Your task to perform on an android device: open app "Skype" Image 0: 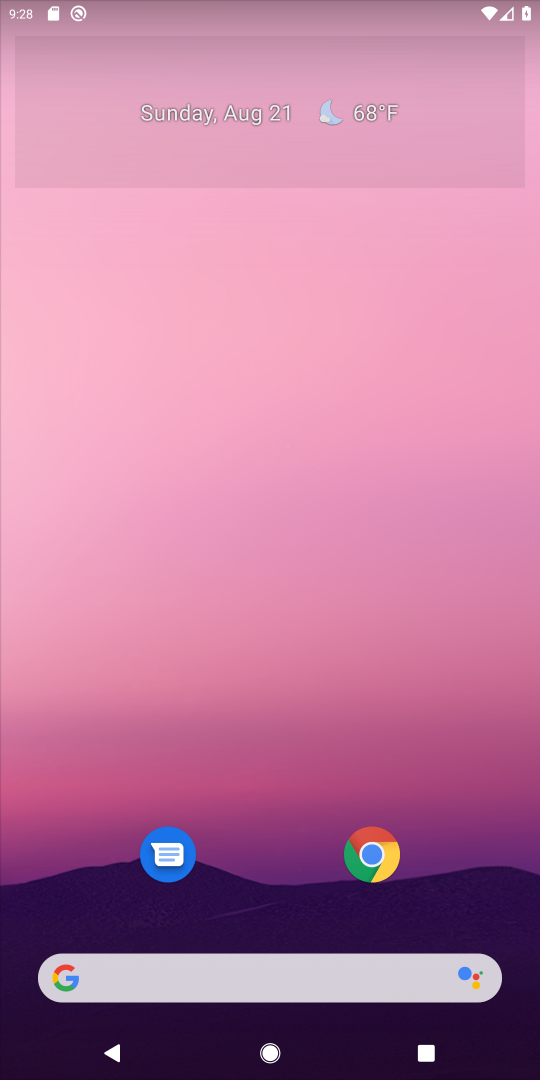
Step 0: drag from (318, 440) to (366, 175)
Your task to perform on an android device: open app "Skype" Image 1: 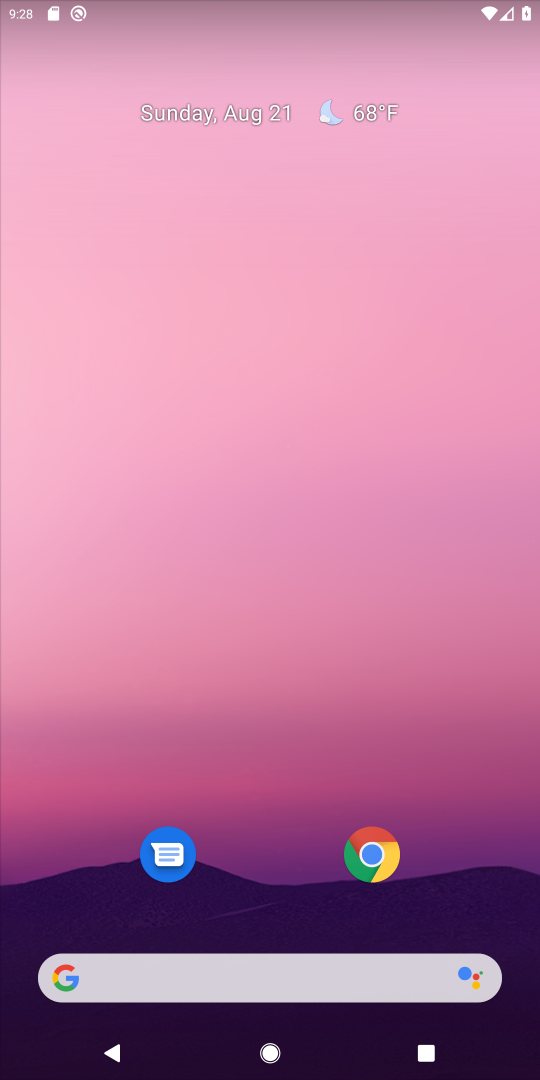
Step 1: drag from (318, 932) to (257, 79)
Your task to perform on an android device: open app "Skype" Image 2: 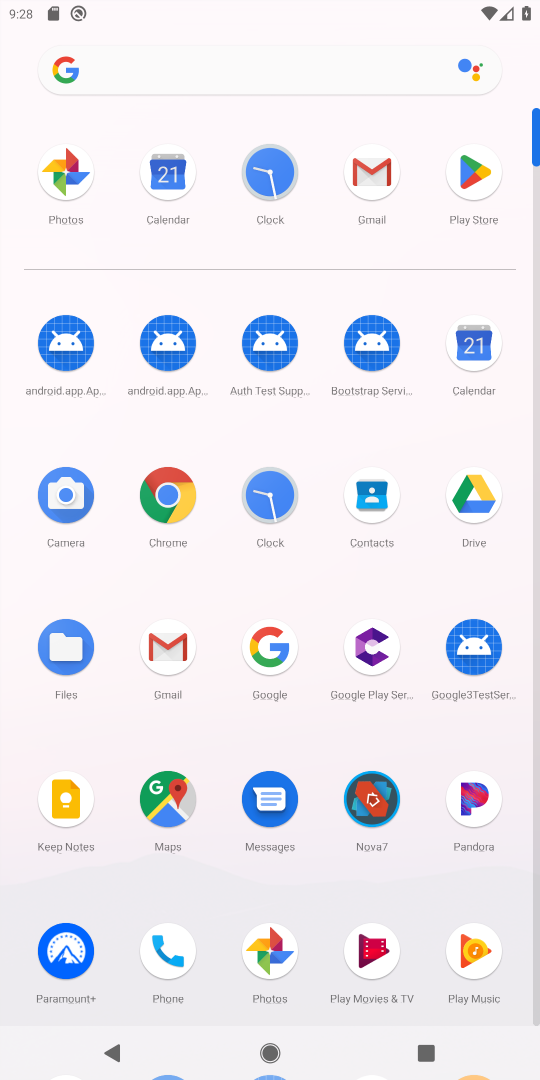
Step 2: click (471, 198)
Your task to perform on an android device: open app "Skype" Image 3: 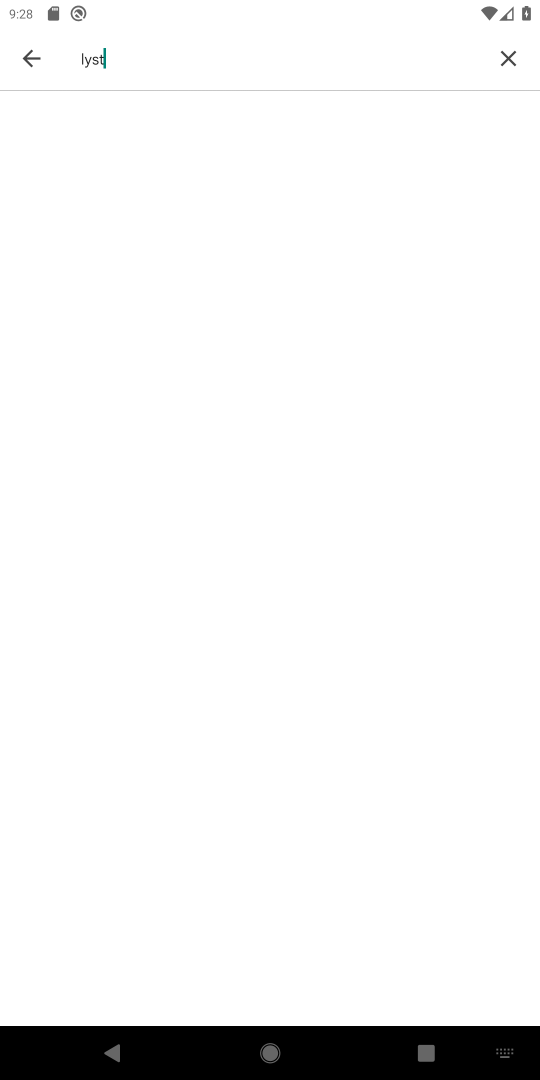
Step 3: click (501, 59)
Your task to perform on an android device: open app "Skype" Image 4: 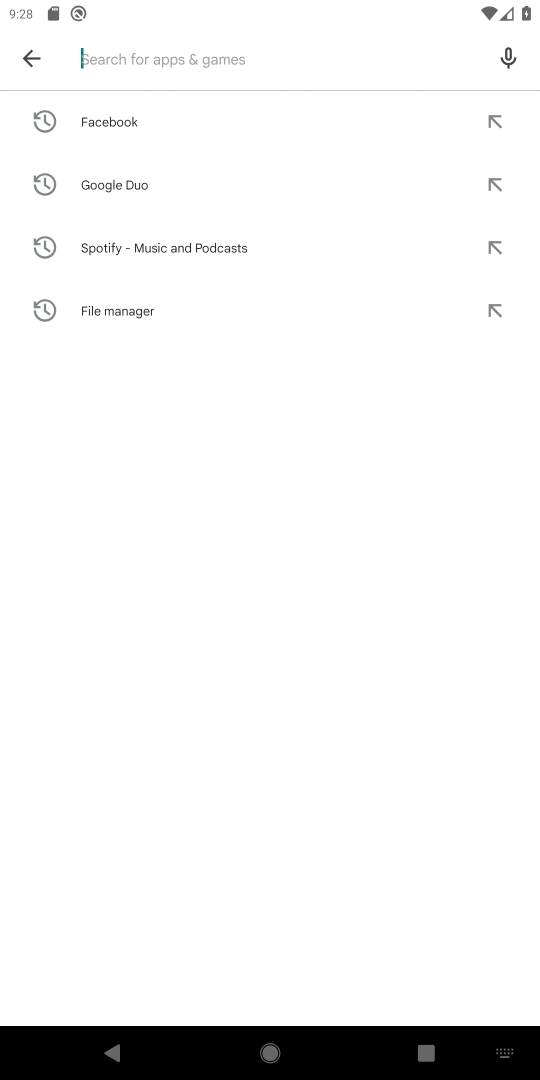
Step 4: type "skype"
Your task to perform on an android device: open app "Skype" Image 5: 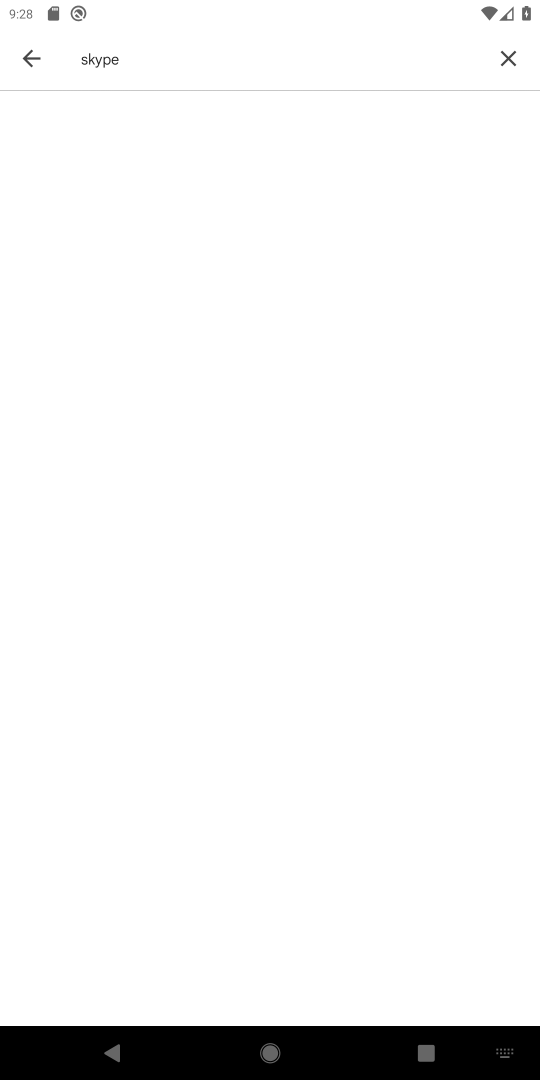
Step 5: task complete